Your task to perform on an android device: check the backup settings in the google photos Image 0: 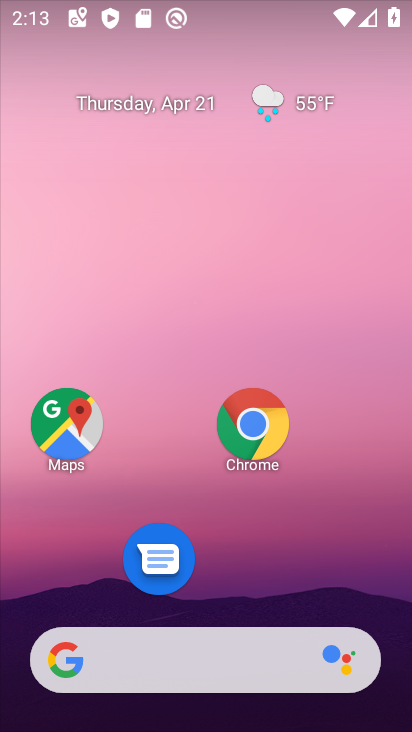
Step 0: drag from (268, 566) to (238, 14)
Your task to perform on an android device: check the backup settings in the google photos Image 1: 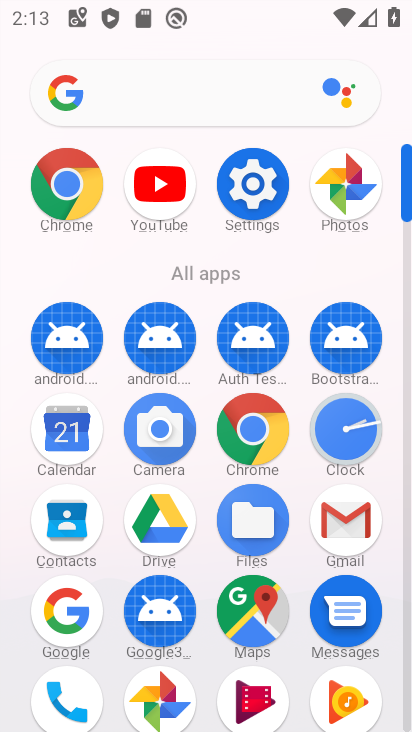
Step 1: click (344, 173)
Your task to perform on an android device: check the backup settings in the google photos Image 2: 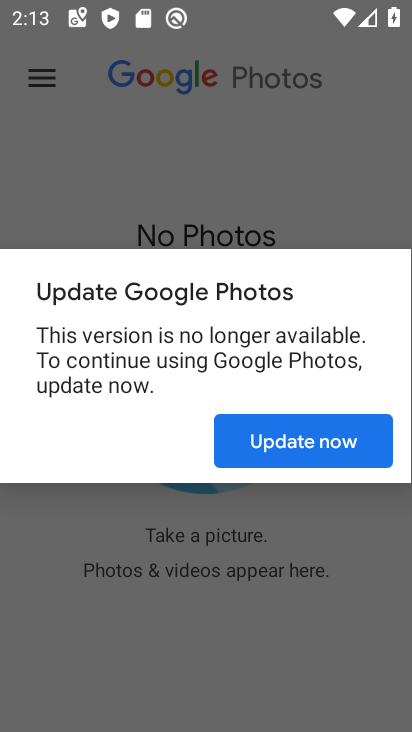
Step 2: click (297, 437)
Your task to perform on an android device: check the backup settings in the google photos Image 3: 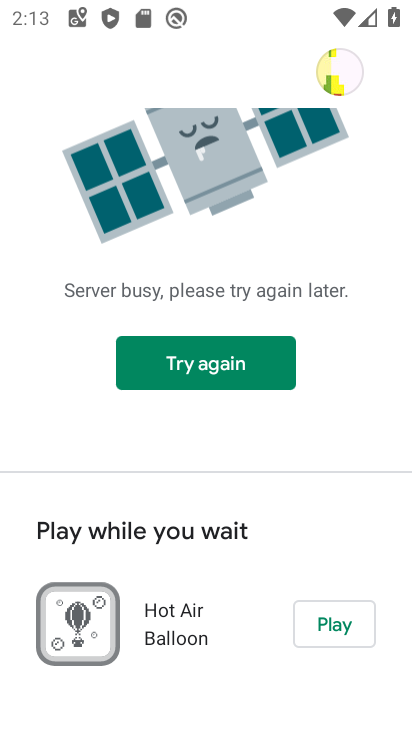
Step 3: task complete